Your task to perform on an android device: clear all cookies in the chrome app Image 0: 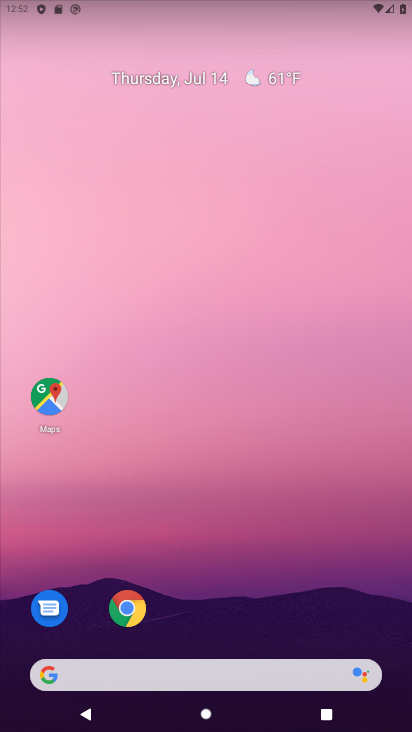
Step 0: drag from (368, 600) to (372, 176)
Your task to perform on an android device: clear all cookies in the chrome app Image 1: 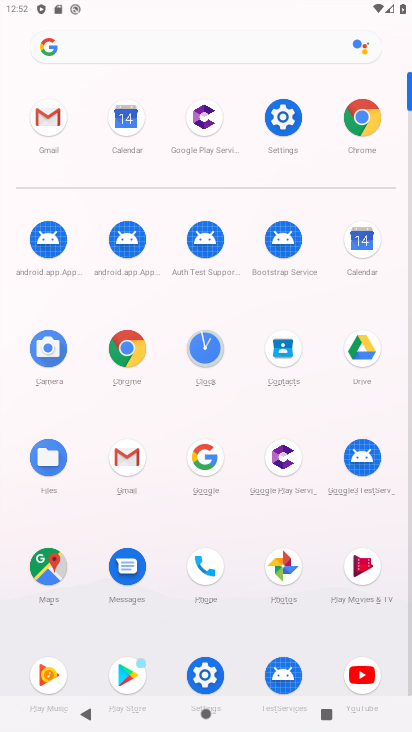
Step 1: click (131, 348)
Your task to perform on an android device: clear all cookies in the chrome app Image 2: 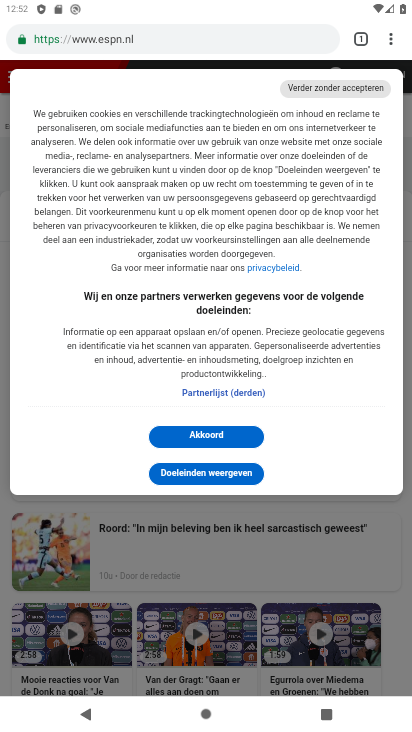
Step 2: click (390, 43)
Your task to perform on an android device: clear all cookies in the chrome app Image 3: 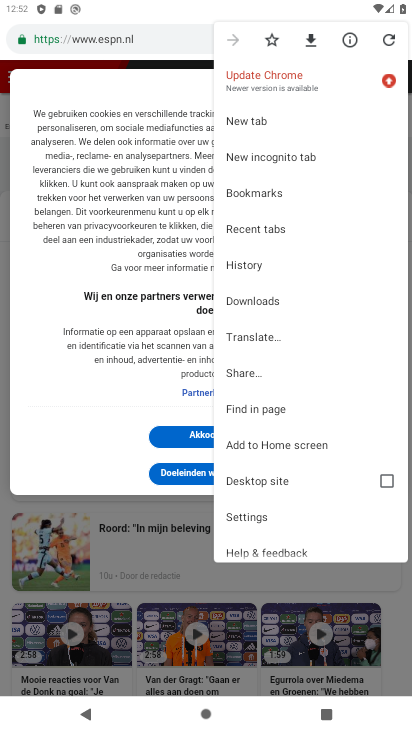
Step 3: click (297, 519)
Your task to perform on an android device: clear all cookies in the chrome app Image 4: 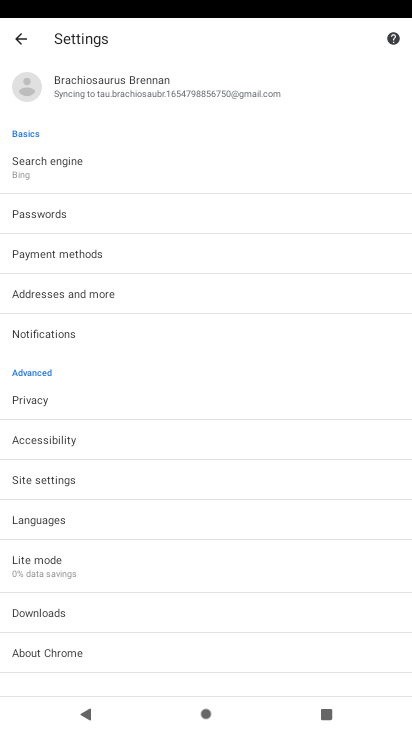
Step 4: drag from (299, 552) to (299, 458)
Your task to perform on an android device: clear all cookies in the chrome app Image 5: 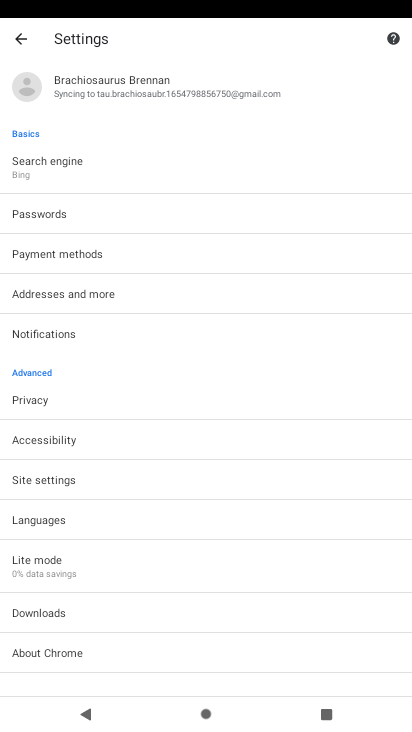
Step 5: click (196, 397)
Your task to perform on an android device: clear all cookies in the chrome app Image 6: 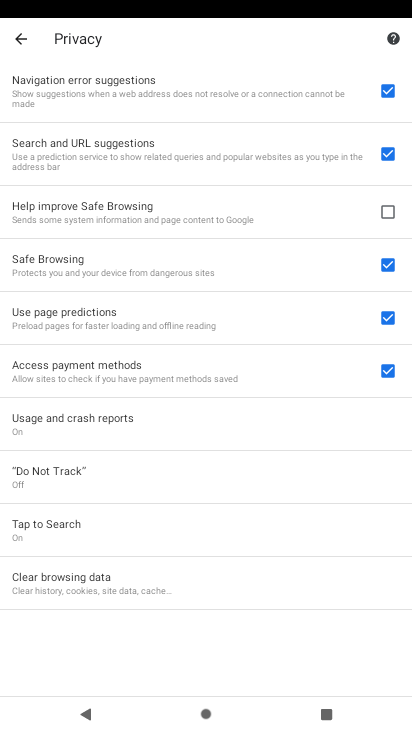
Step 6: click (264, 577)
Your task to perform on an android device: clear all cookies in the chrome app Image 7: 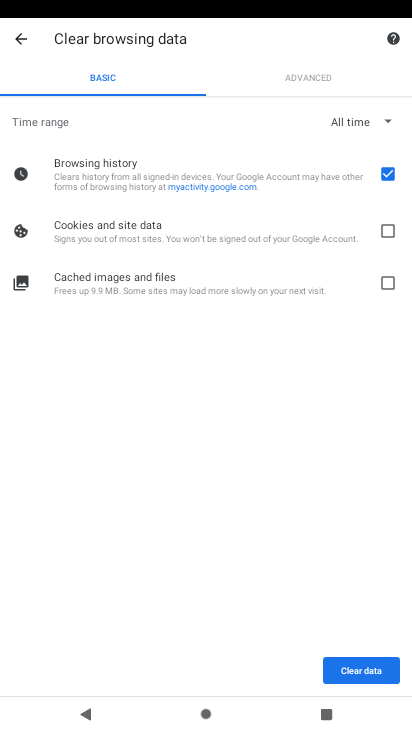
Step 7: click (391, 279)
Your task to perform on an android device: clear all cookies in the chrome app Image 8: 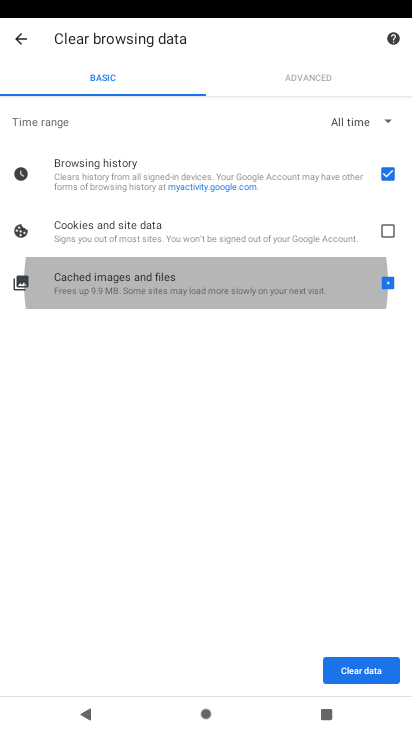
Step 8: click (393, 233)
Your task to perform on an android device: clear all cookies in the chrome app Image 9: 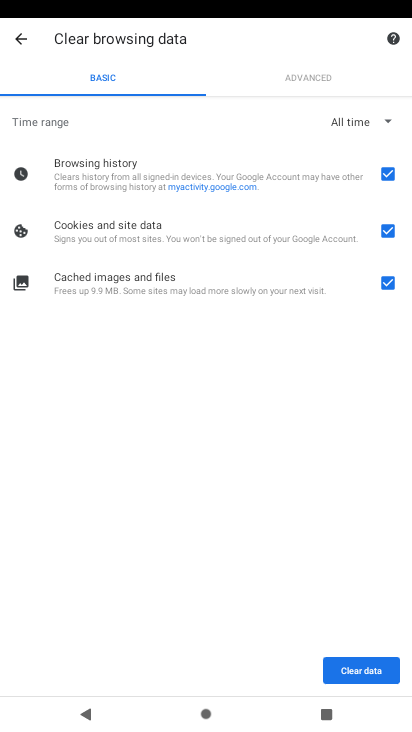
Step 9: click (370, 668)
Your task to perform on an android device: clear all cookies in the chrome app Image 10: 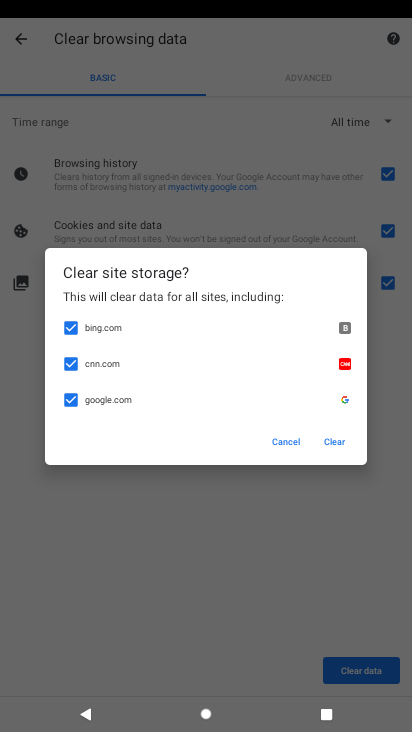
Step 10: click (339, 447)
Your task to perform on an android device: clear all cookies in the chrome app Image 11: 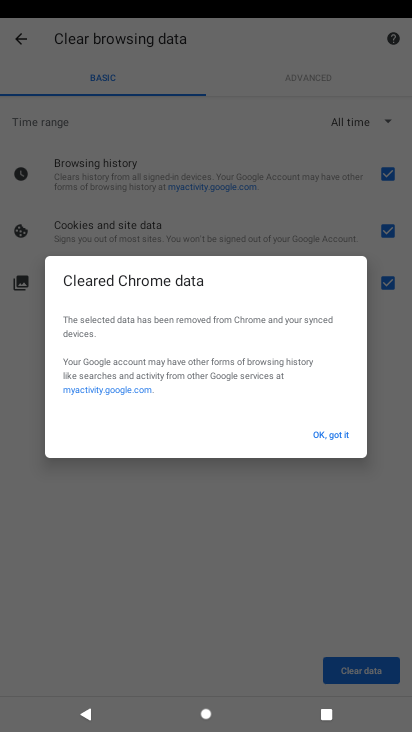
Step 11: click (332, 432)
Your task to perform on an android device: clear all cookies in the chrome app Image 12: 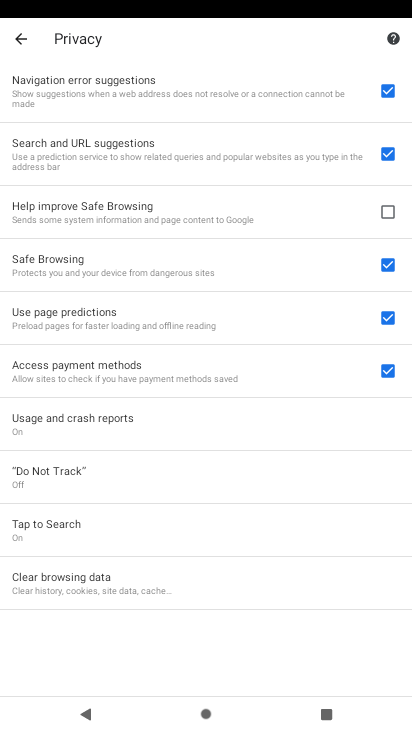
Step 12: task complete